Your task to perform on an android device: Open ESPN.com Image 0: 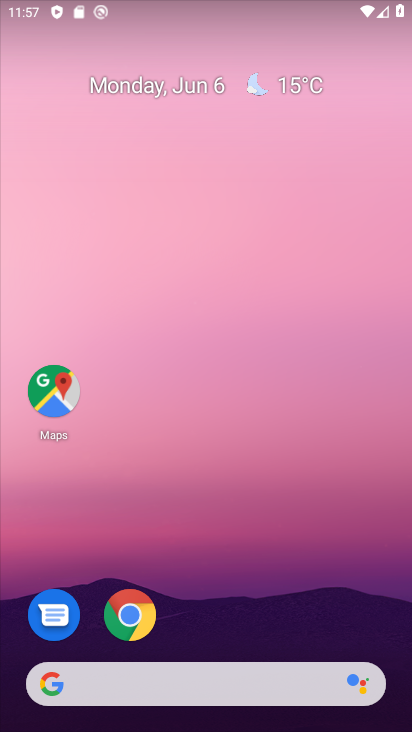
Step 0: click (123, 616)
Your task to perform on an android device: Open ESPN.com Image 1: 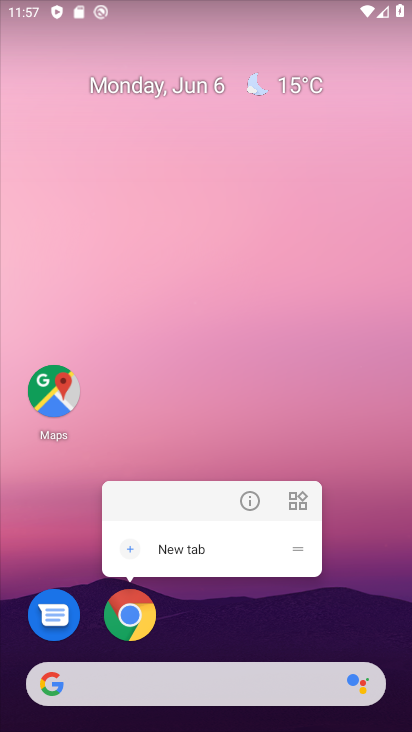
Step 1: click (117, 601)
Your task to perform on an android device: Open ESPN.com Image 2: 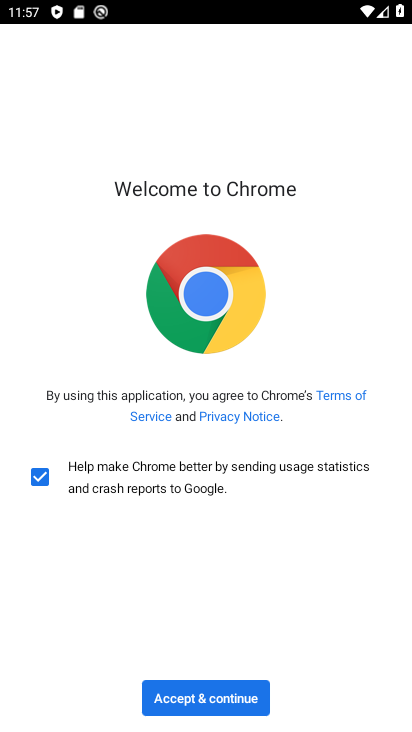
Step 2: click (210, 707)
Your task to perform on an android device: Open ESPN.com Image 3: 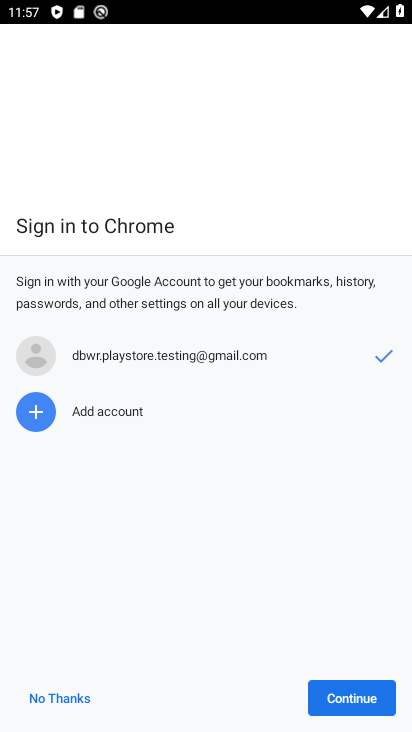
Step 3: click (337, 701)
Your task to perform on an android device: Open ESPN.com Image 4: 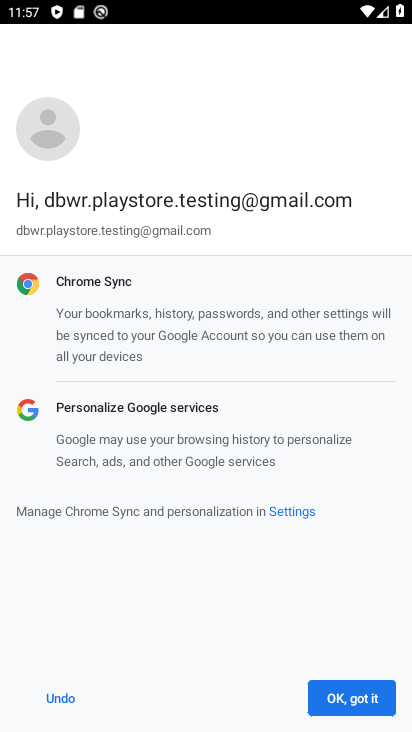
Step 4: click (328, 697)
Your task to perform on an android device: Open ESPN.com Image 5: 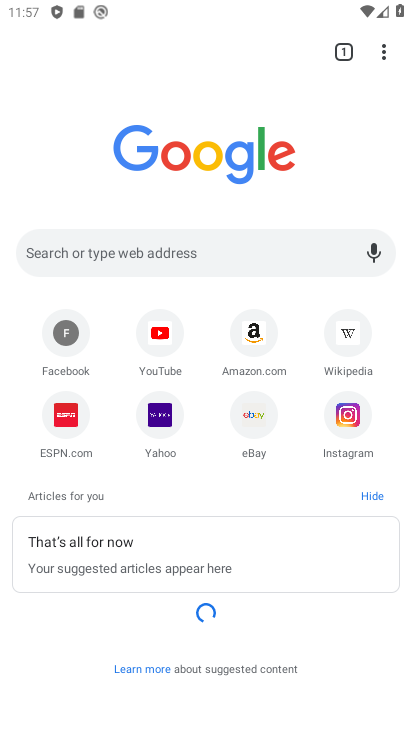
Step 5: click (60, 448)
Your task to perform on an android device: Open ESPN.com Image 6: 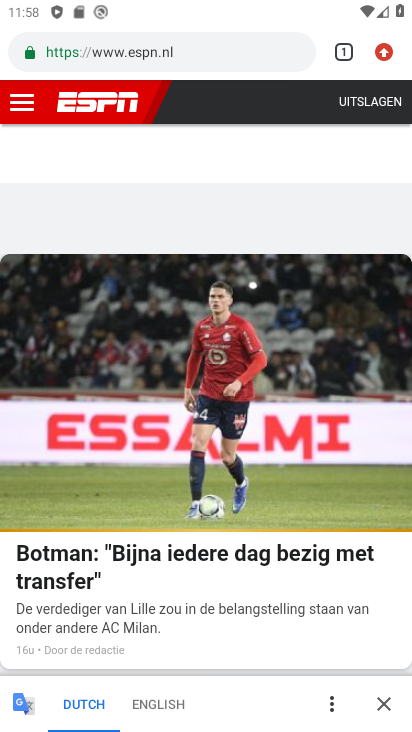
Step 6: task complete